Your task to perform on an android device: Go to location settings Image 0: 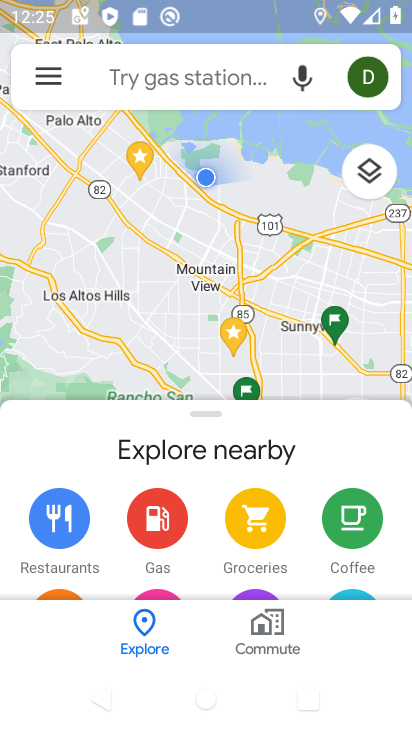
Step 0: press home button
Your task to perform on an android device: Go to location settings Image 1: 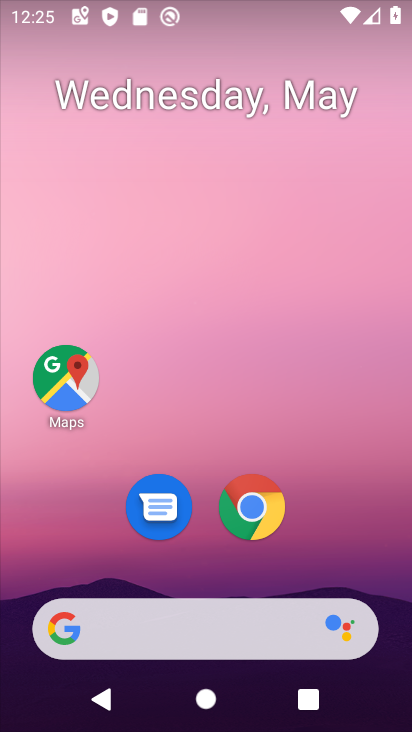
Step 1: drag from (290, 515) to (293, 132)
Your task to perform on an android device: Go to location settings Image 2: 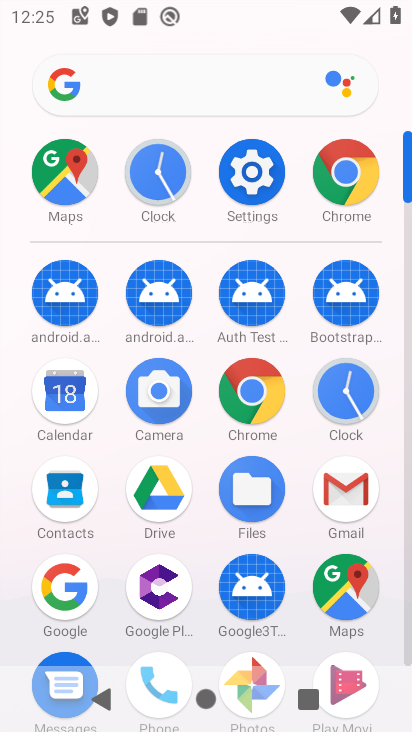
Step 2: click (236, 182)
Your task to perform on an android device: Go to location settings Image 3: 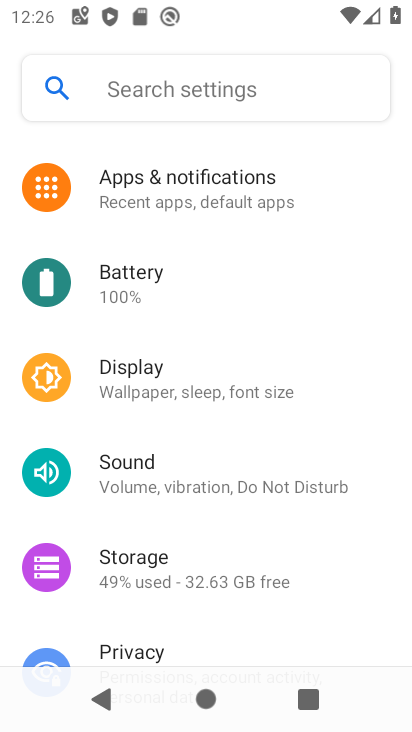
Step 3: drag from (237, 533) to (226, 142)
Your task to perform on an android device: Go to location settings Image 4: 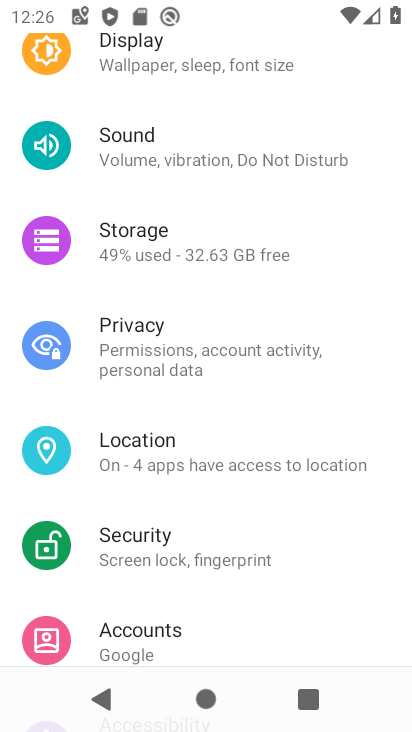
Step 4: click (181, 437)
Your task to perform on an android device: Go to location settings Image 5: 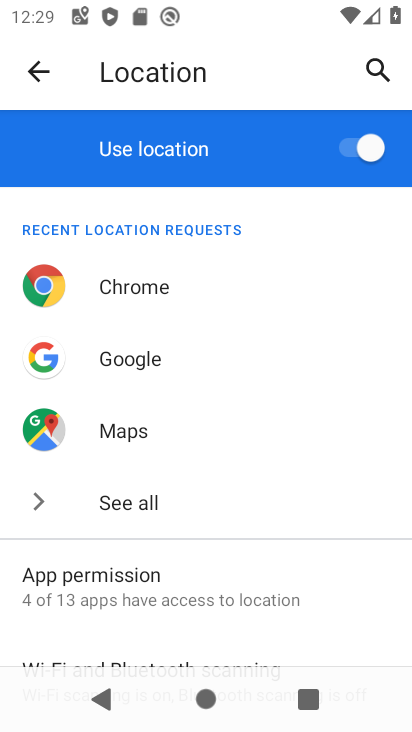
Step 5: task complete